Your task to perform on an android device: Search for a dining table on crateandbarrel.com Image 0: 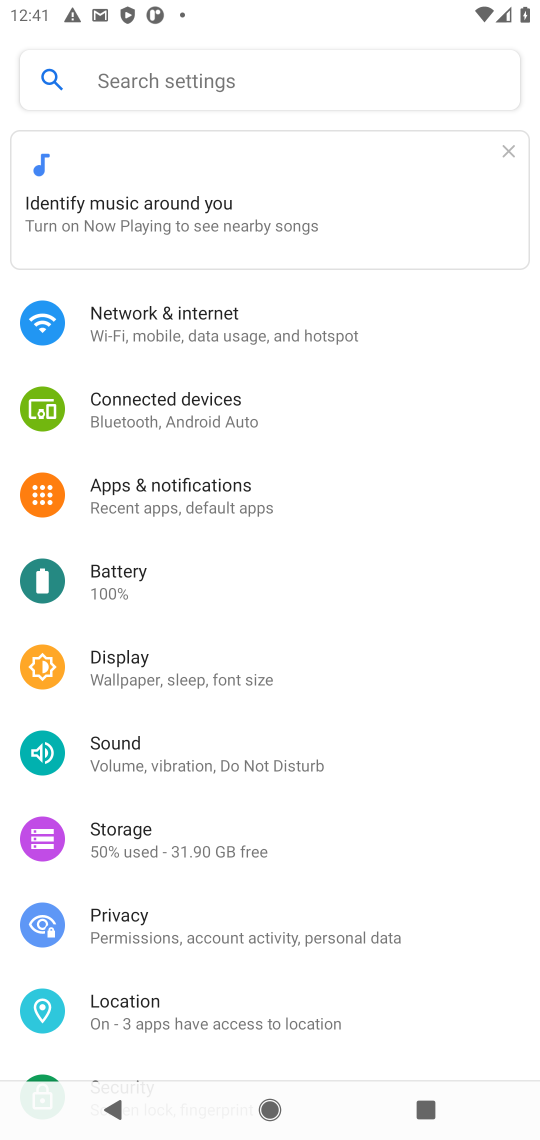
Step 0: press home button
Your task to perform on an android device: Search for a dining table on crateandbarrel.com Image 1: 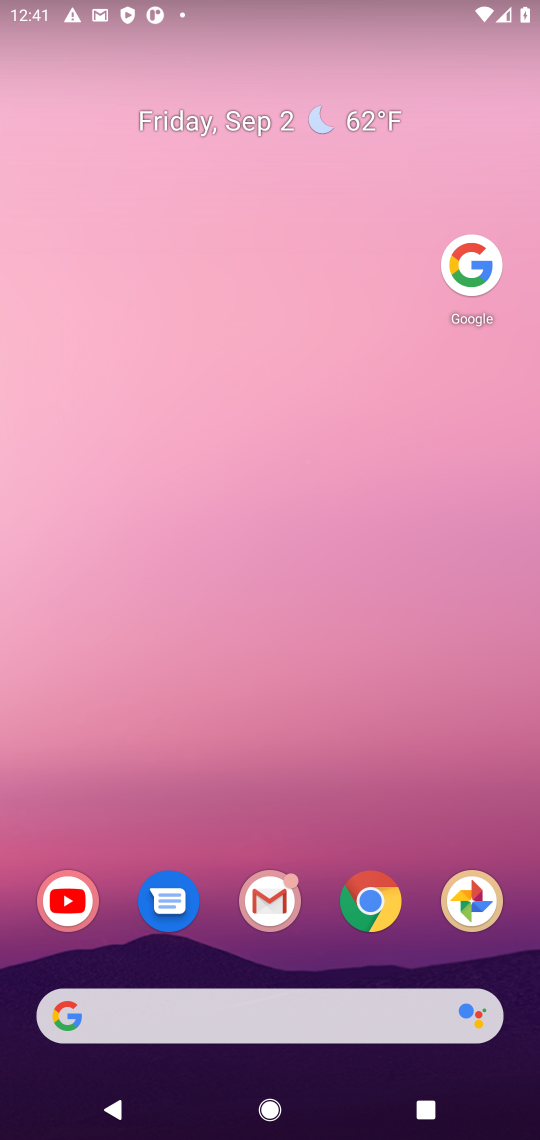
Step 1: click (301, 157)
Your task to perform on an android device: Search for a dining table on crateandbarrel.com Image 2: 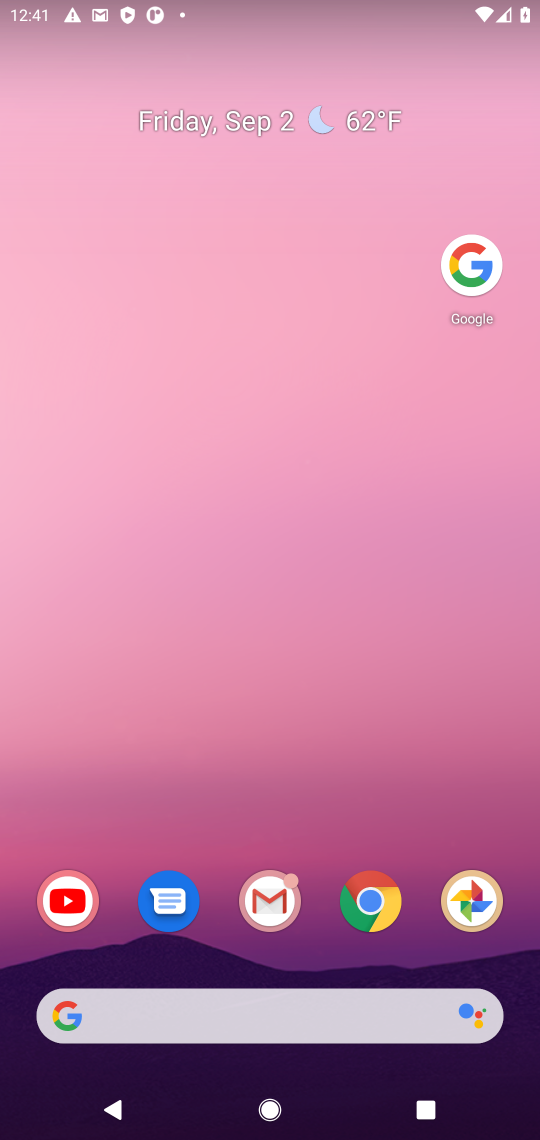
Step 2: click (461, 262)
Your task to perform on an android device: Search for a dining table on crateandbarrel.com Image 3: 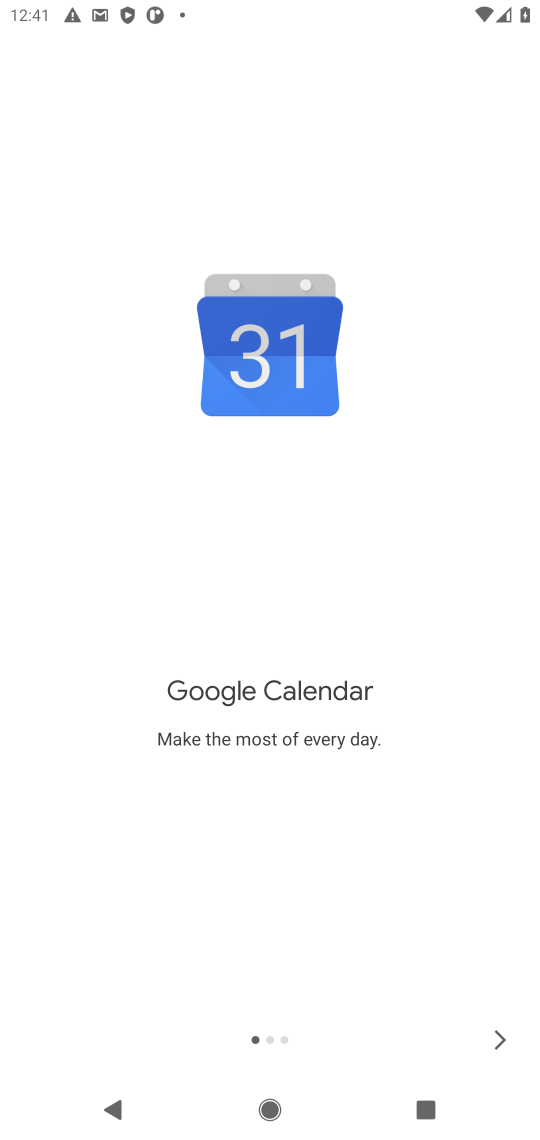
Step 3: press home button
Your task to perform on an android device: Search for a dining table on crateandbarrel.com Image 4: 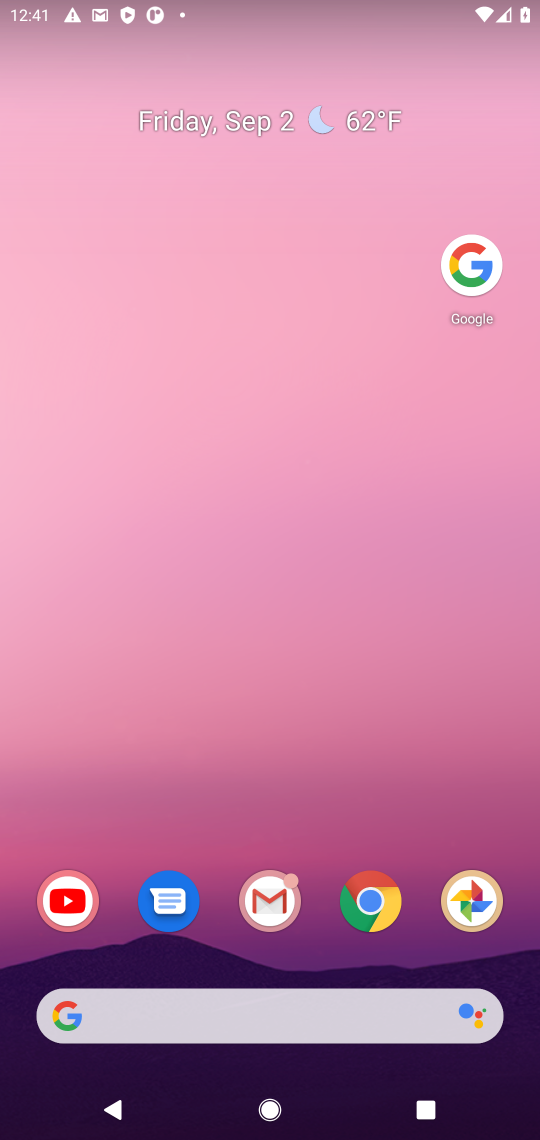
Step 4: click (475, 249)
Your task to perform on an android device: Search for a dining table on crateandbarrel.com Image 5: 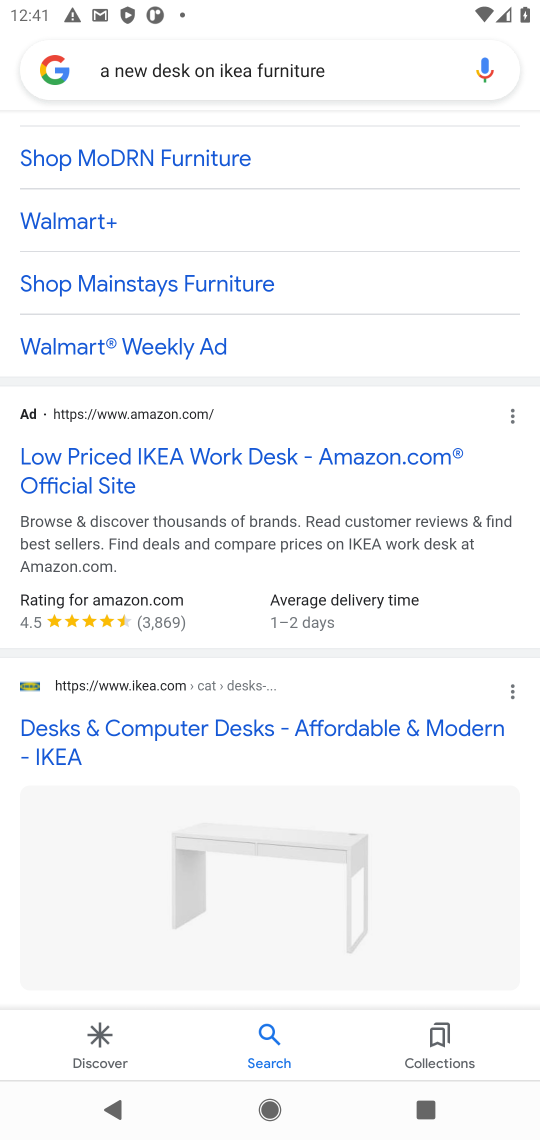
Step 5: drag from (250, 746) to (222, 1002)
Your task to perform on an android device: Search for a dining table on crateandbarrel.com Image 6: 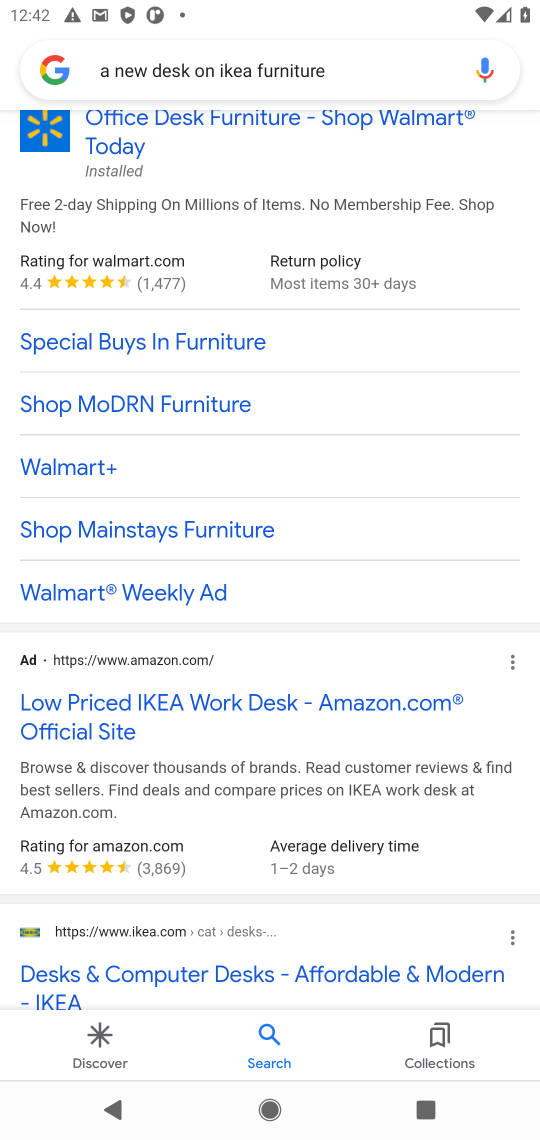
Step 6: click (388, 68)
Your task to perform on an android device: Search for a dining table on crateandbarrel.com Image 7: 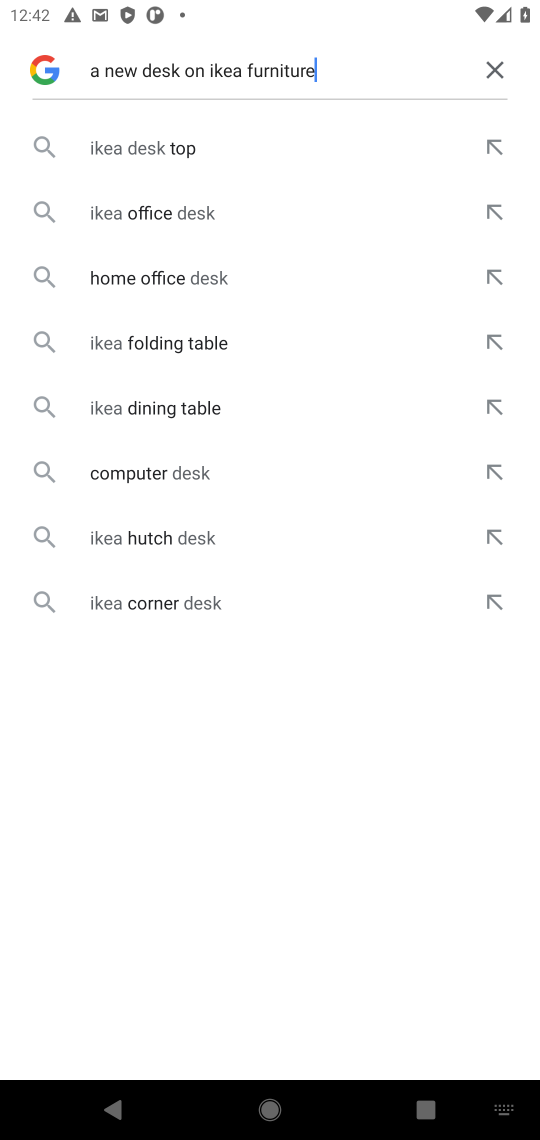
Step 7: click (488, 68)
Your task to perform on an android device: Search for a dining table on crateandbarrel.com Image 8: 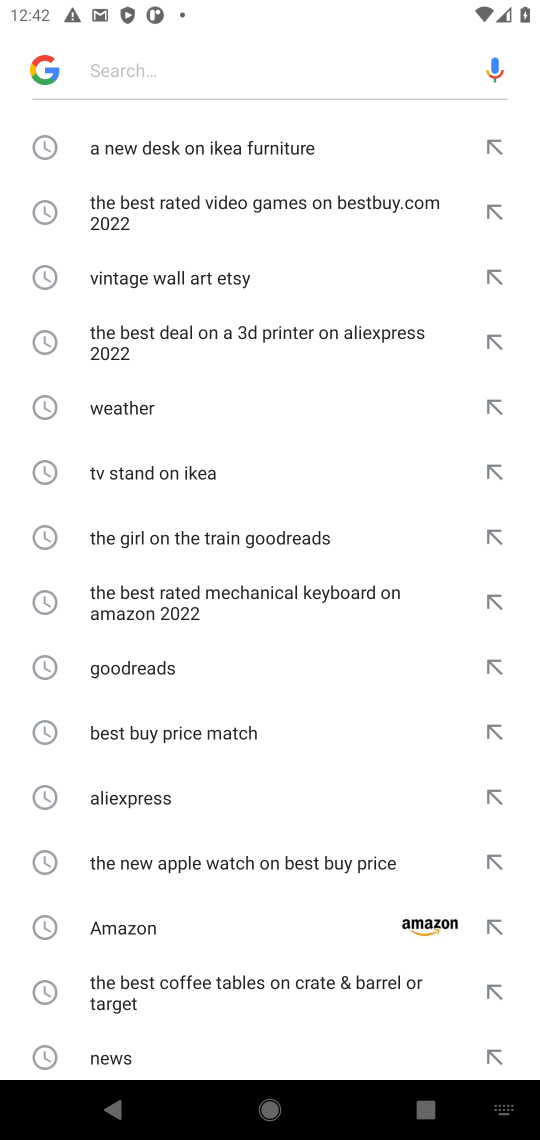
Step 8: click (269, 57)
Your task to perform on an android device: Search for a dining table on crateandbarrel.com Image 9: 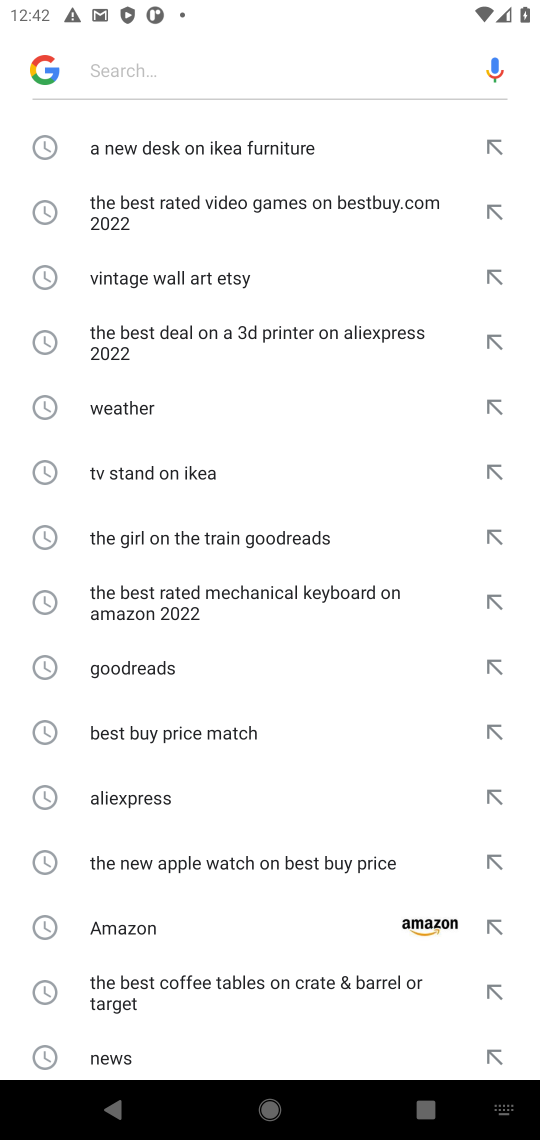
Step 9: type "a dining table on crateandbarrel.com "
Your task to perform on an android device: Search for a dining table on crateandbarrel.com Image 10: 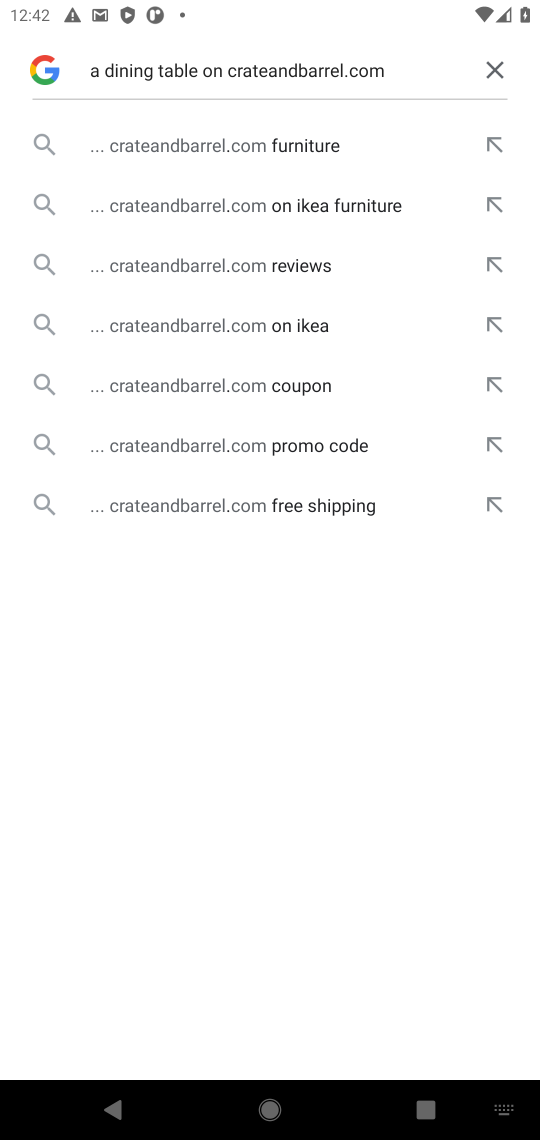
Step 10: click (239, 144)
Your task to perform on an android device: Search for a dining table on crateandbarrel.com Image 11: 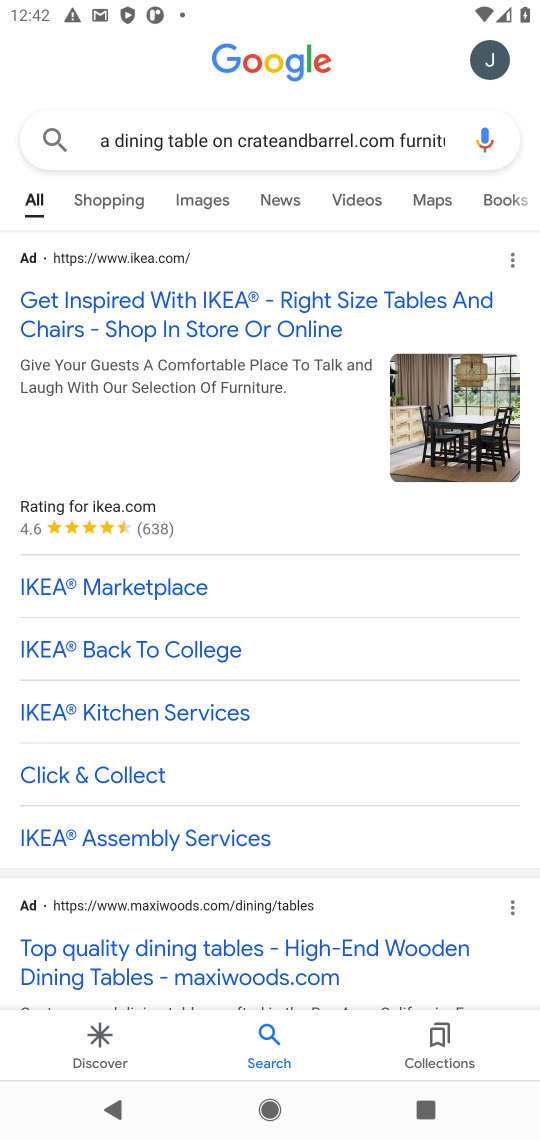
Step 11: drag from (235, 748) to (263, 580)
Your task to perform on an android device: Search for a dining table on crateandbarrel.com Image 12: 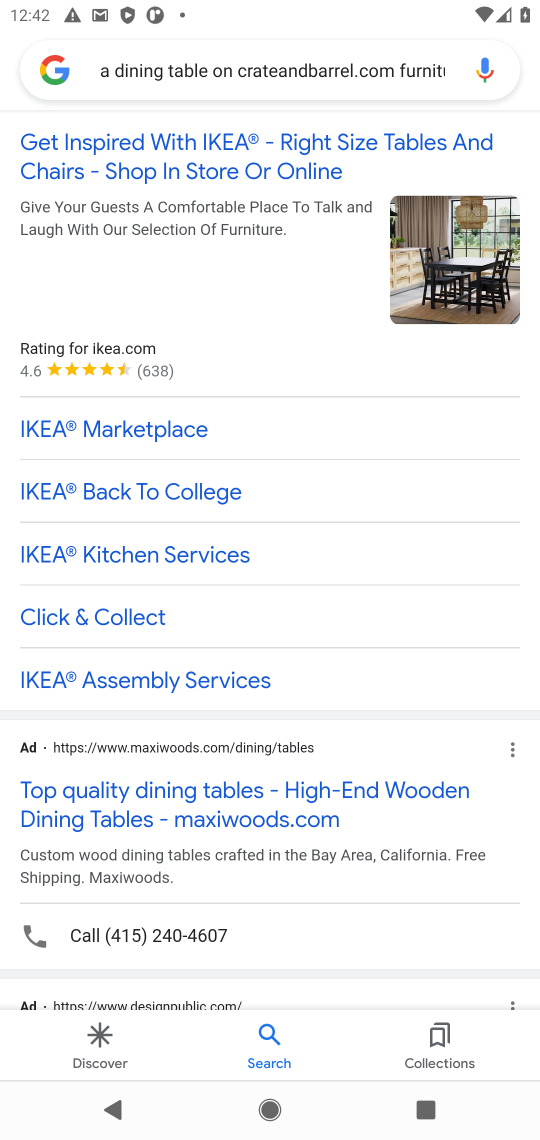
Step 12: drag from (254, 900) to (321, 546)
Your task to perform on an android device: Search for a dining table on crateandbarrel.com Image 13: 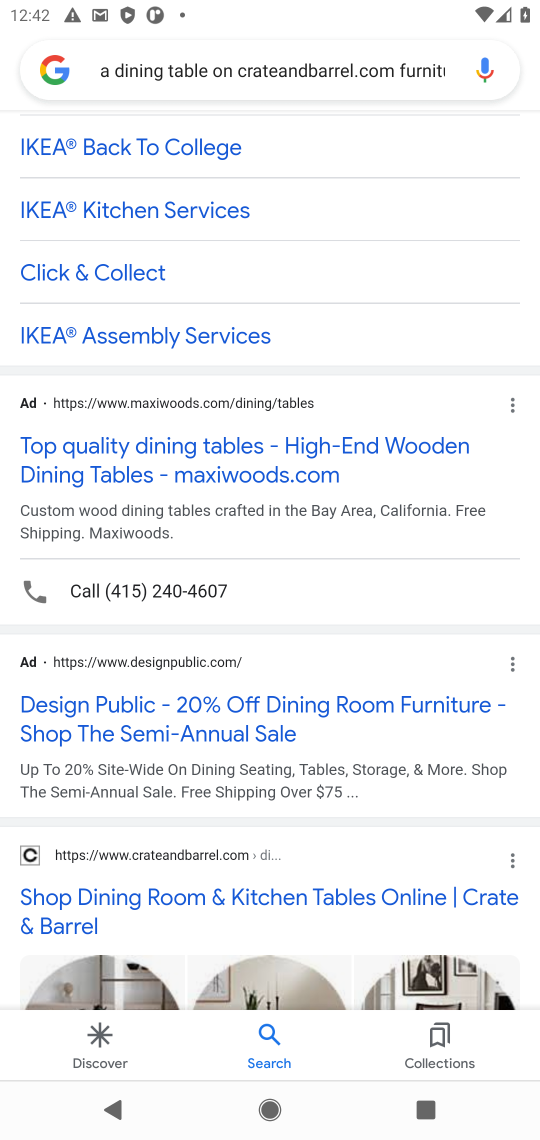
Step 13: click (286, 570)
Your task to perform on an android device: Search for a dining table on crateandbarrel.com Image 14: 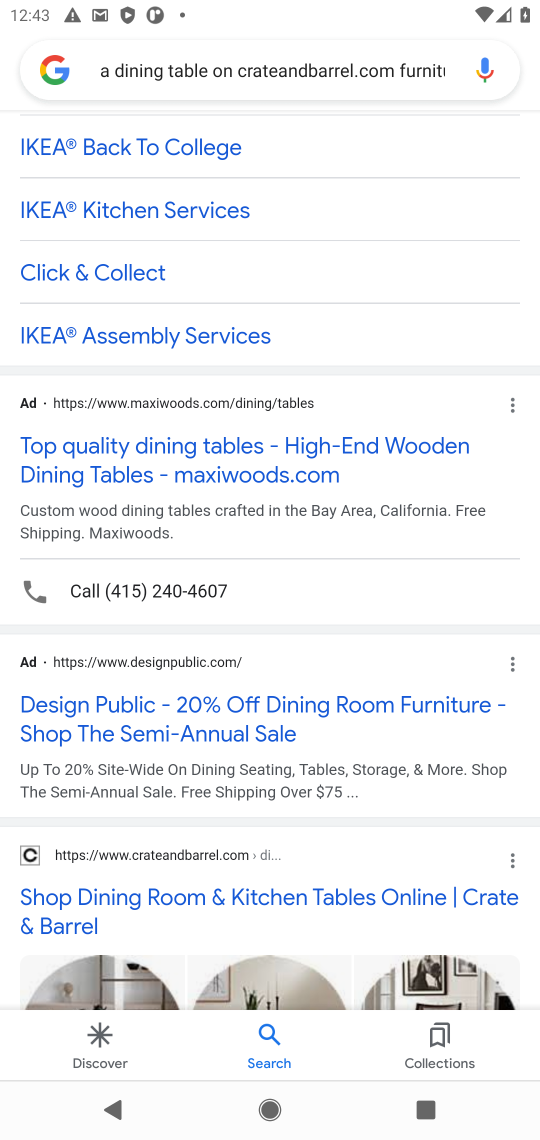
Step 14: click (157, 892)
Your task to perform on an android device: Search for a dining table on crateandbarrel.com Image 15: 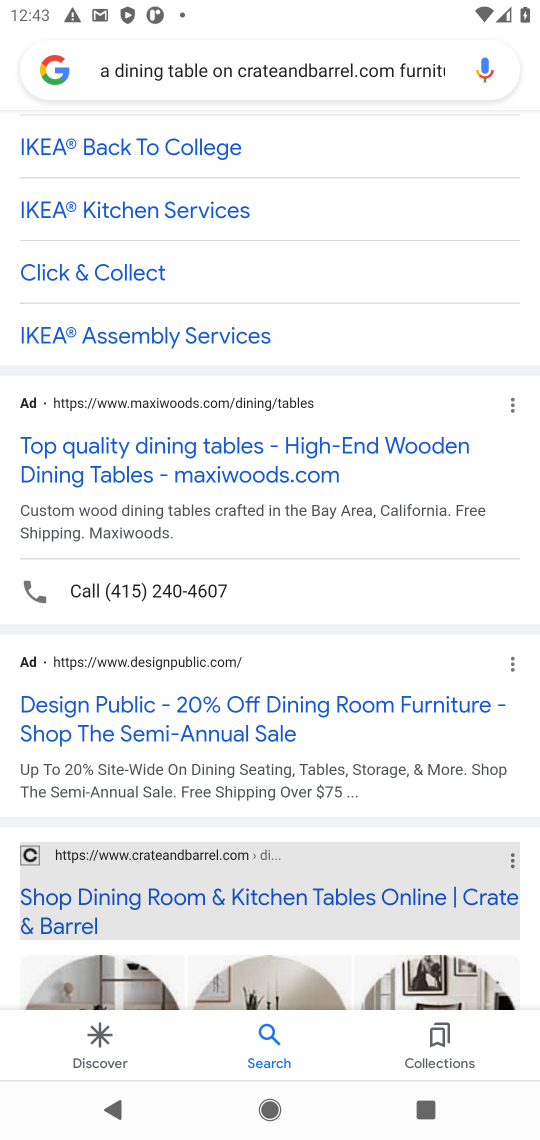
Step 15: click (157, 892)
Your task to perform on an android device: Search for a dining table on crateandbarrel.com Image 16: 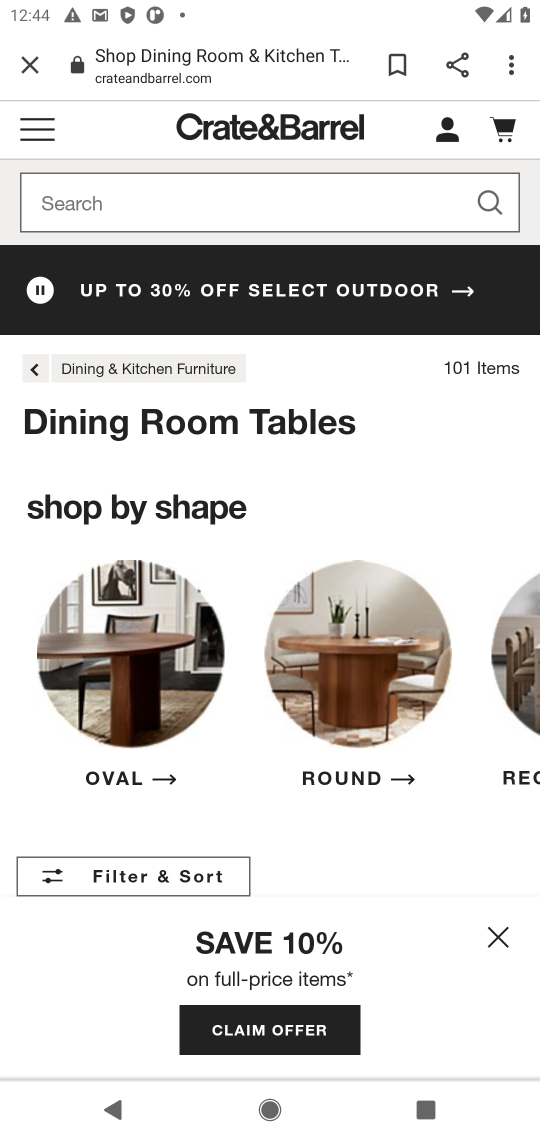
Step 16: task complete